Your task to perform on an android device: What is the news today? Image 0: 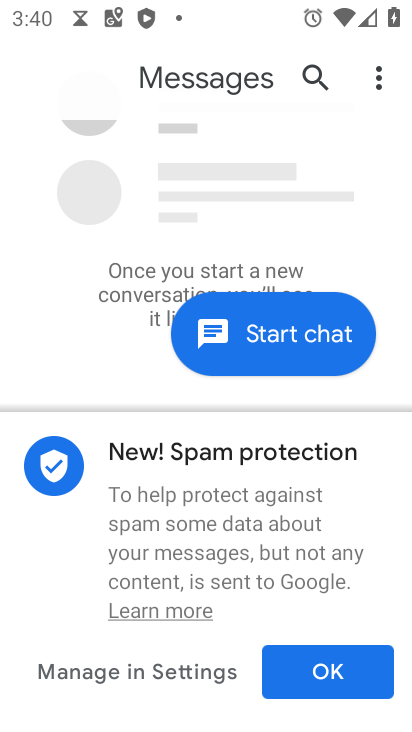
Step 0: press back button
Your task to perform on an android device: What is the news today? Image 1: 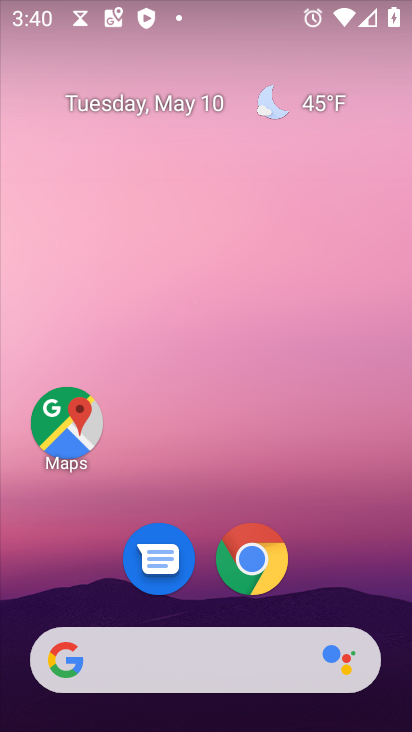
Step 1: drag from (6, 210) to (402, 346)
Your task to perform on an android device: What is the news today? Image 2: 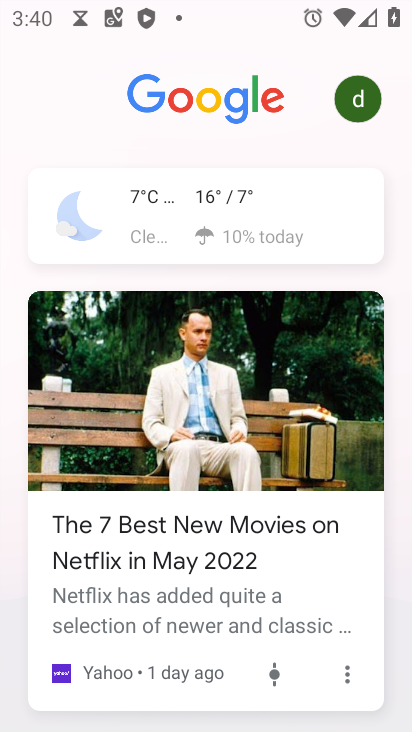
Step 2: drag from (202, 601) to (142, 190)
Your task to perform on an android device: What is the news today? Image 3: 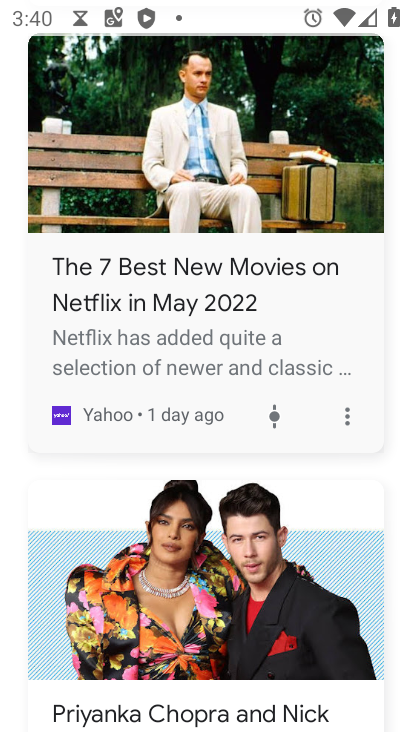
Step 3: drag from (139, 448) to (159, 238)
Your task to perform on an android device: What is the news today? Image 4: 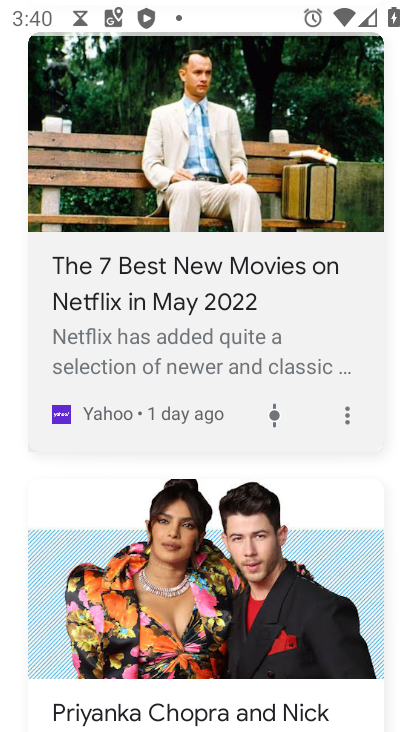
Step 4: drag from (162, 497) to (106, 170)
Your task to perform on an android device: What is the news today? Image 5: 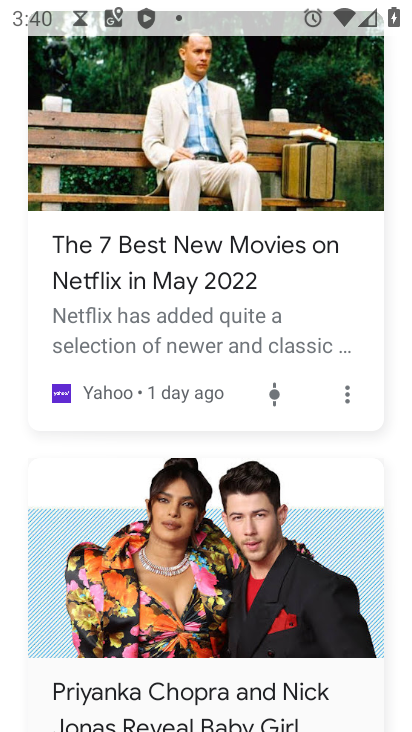
Step 5: drag from (149, 377) to (132, 142)
Your task to perform on an android device: What is the news today? Image 6: 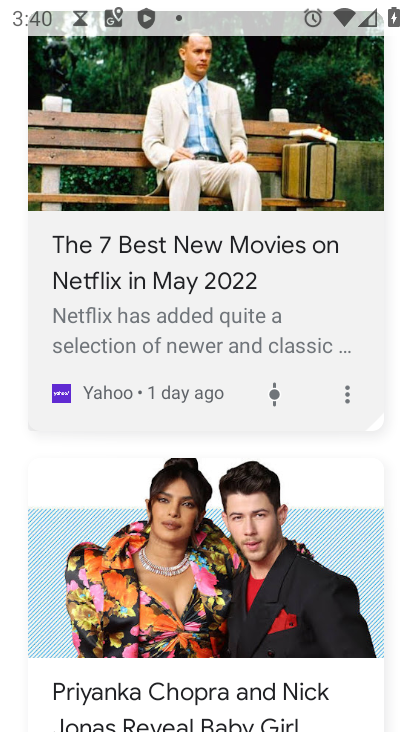
Step 6: drag from (205, 540) to (201, 203)
Your task to perform on an android device: What is the news today? Image 7: 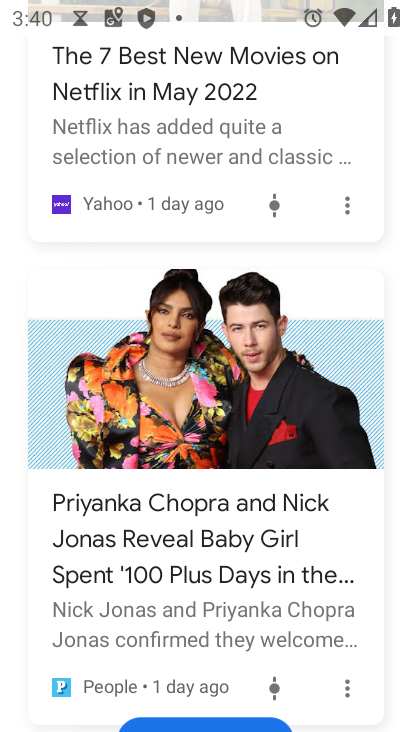
Step 7: drag from (177, 442) to (166, 140)
Your task to perform on an android device: What is the news today? Image 8: 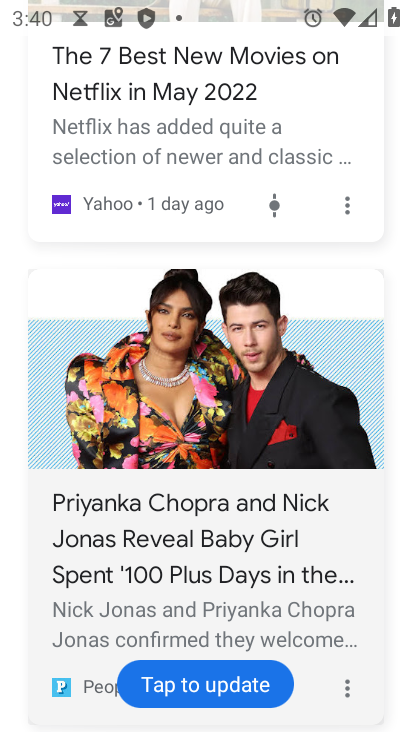
Step 8: drag from (191, 425) to (201, 271)
Your task to perform on an android device: What is the news today? Image 9: 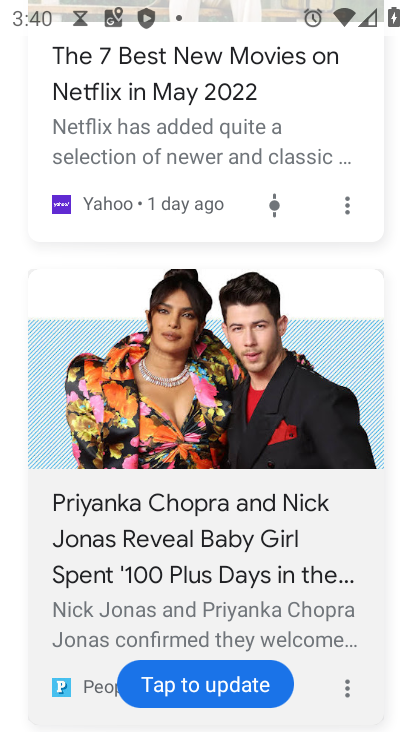
Step 9: drag from (186, 469) to (154, 209)
Your task to perform on an android device: What is the news today? Image 10: 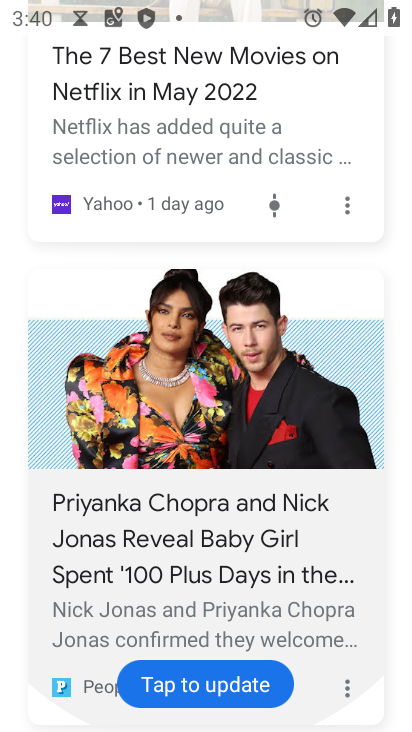
Step 10: drag from (147, 497) to (189, 184)
Your task to perform on an android device: What is the news today? Image 11: 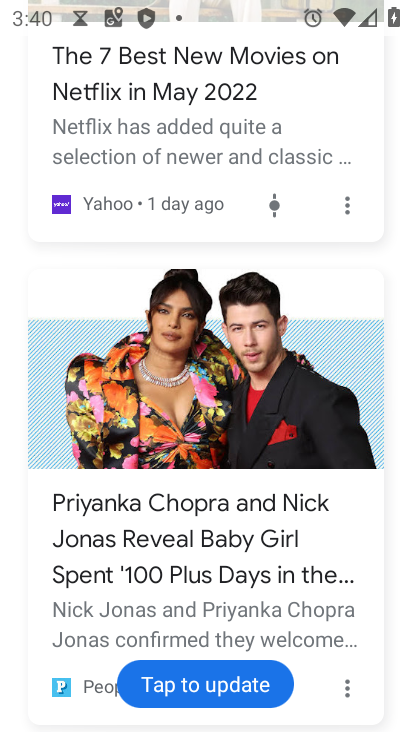
Step 11: drag from (283, 566) to (262, 342)
Your task to perform on an android device: What is the news today? Image 12: 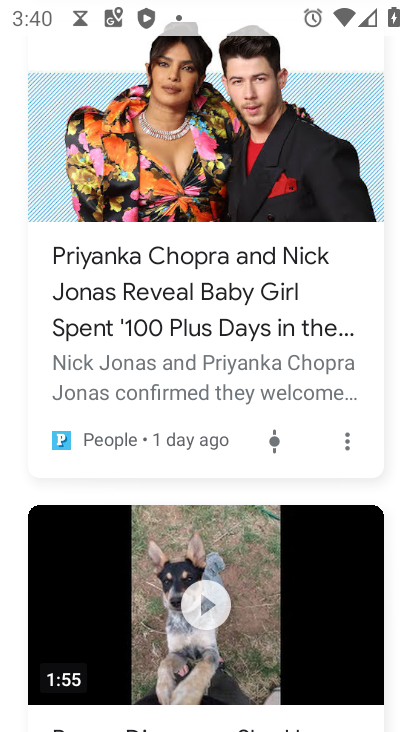
Step 12: drag from (242, 605) to (185, 178)
Your task to perform on an android device: What is the news today? Image 13: 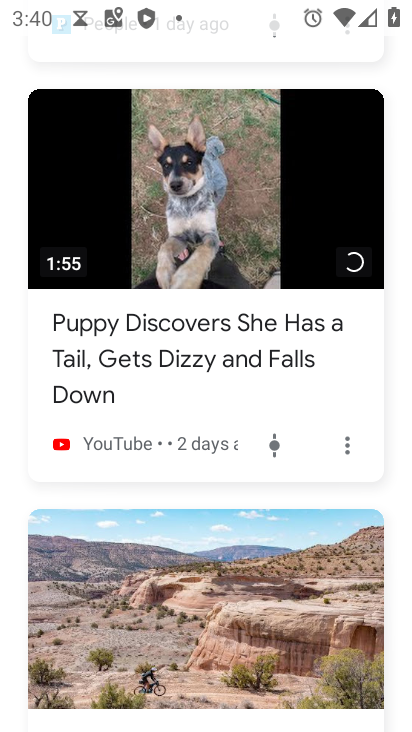
Step 13: drag from (159, 506) to (116, 252)
Your task to perform on an android device: What is the news today? Image 14: 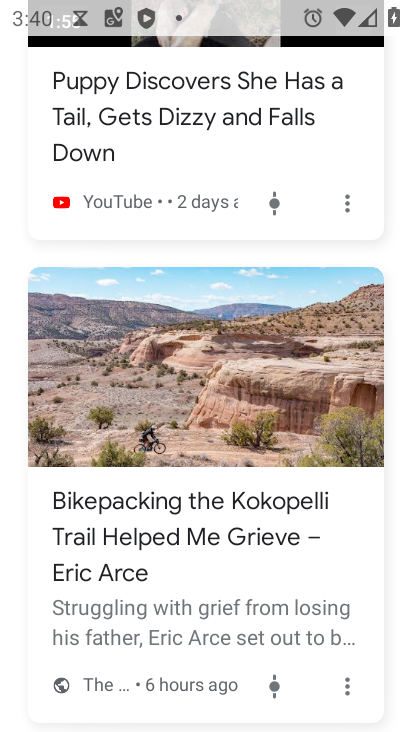
Step 14: drag from (120, 425) to (92, 216)
Your task to perform on an android device: What is the news today? Image 15: 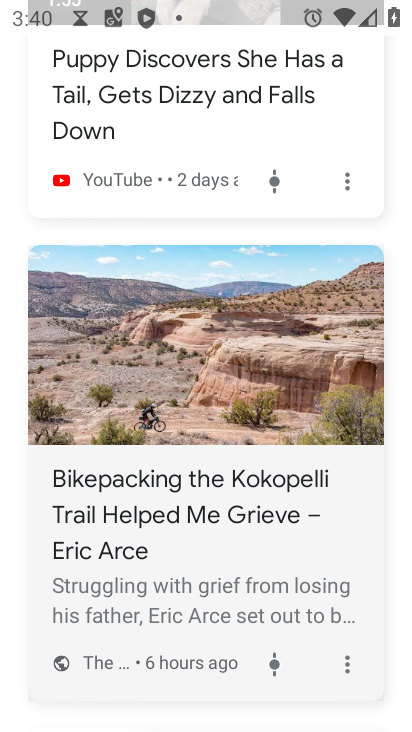
Step 15: drag from (159, 303) to (159, 208)
Your task to perform on an android device: What is the news today? Image 16: 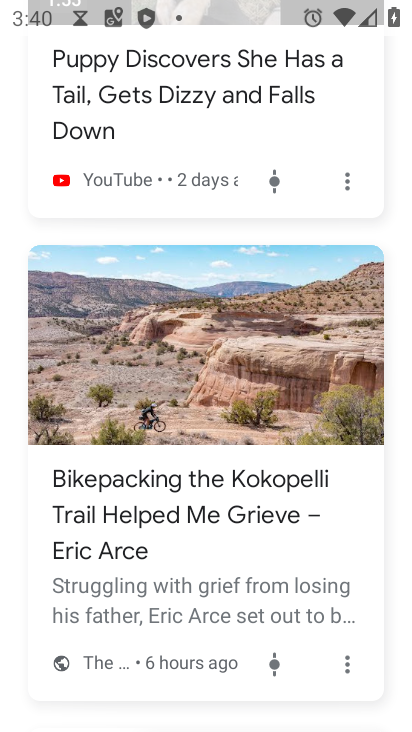
Step 16: drag from (156, 256) to (140, 688)
Your task to perform on an android device: What is the news today? Image 17: 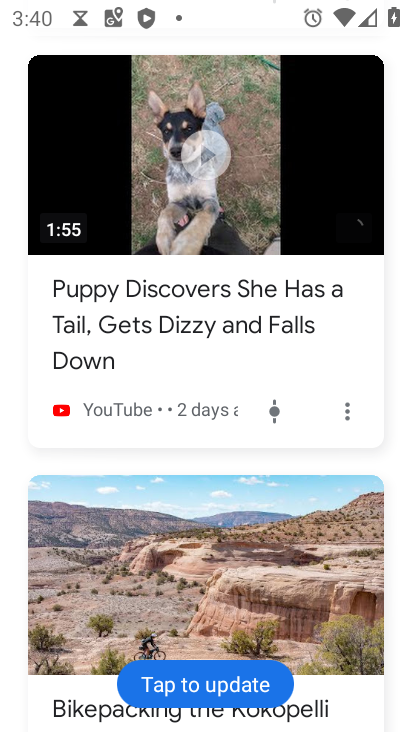
Step 17: click (161, 645)
Your task to perform on an android device: What is the news today? Image 18: 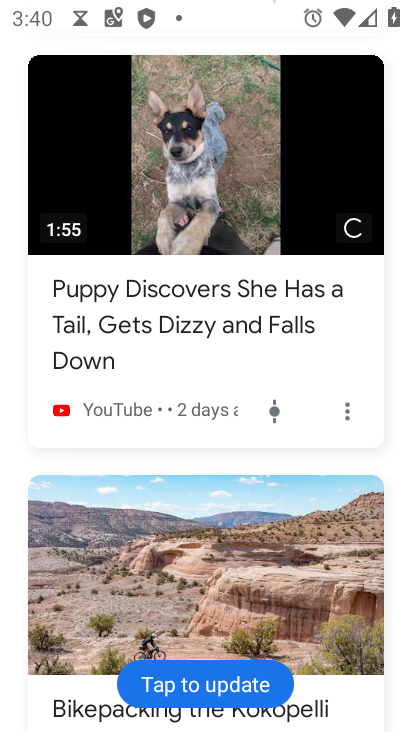
Step 18: task complete